Your task to perform on an android device: star an email in the gmail app Image 0: 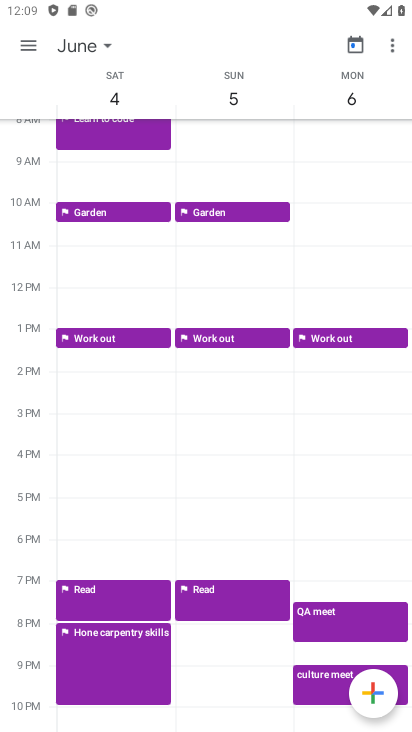
Step 0: press home button
Your task to perform on an android device: star an email in the gmail app Image 1: 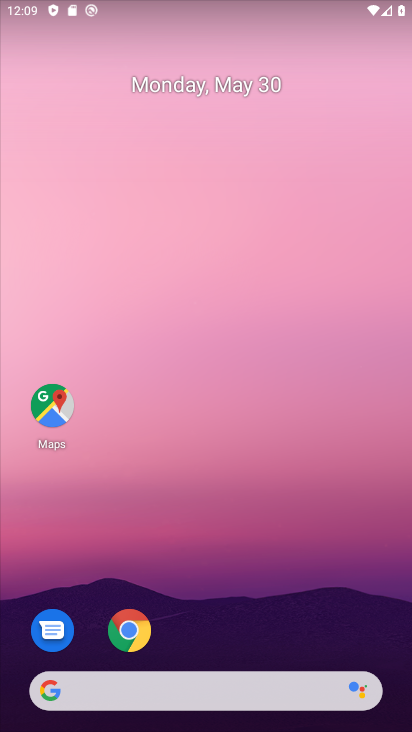
Step 1: drag from (88, 731) to (57, 64)
Your task to perform on an android device: star an email in the gmail app Image 2: 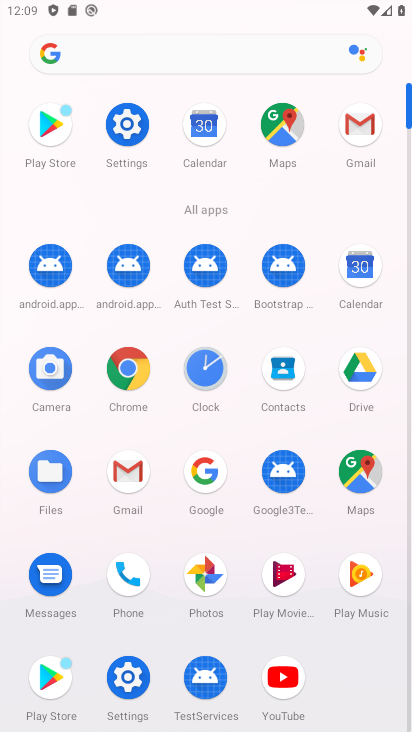
Step 2: click (133, 472)
Your task to perform on an android device: star an email in the gmail app Image 3: 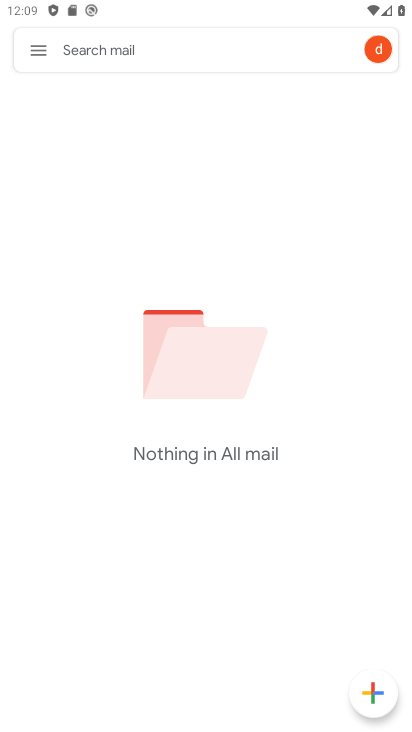
Step 3: click (39, 58)
Your task to perform on an android device: star an email in the gmail app Image 4: 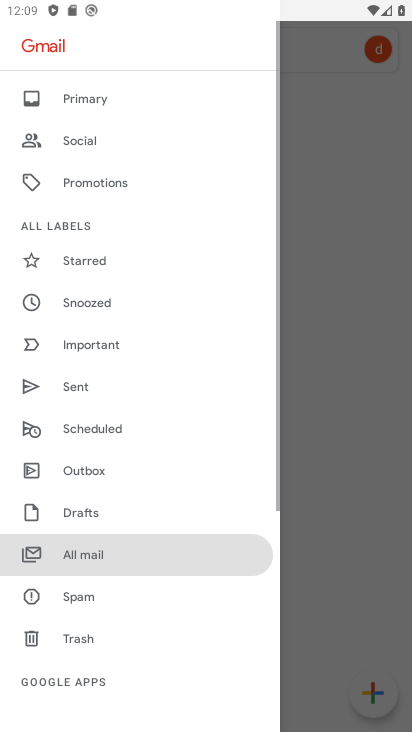
Step 4: click (87, 103)
Your task to perform on an android device: star an email in the gmail app Image 5: 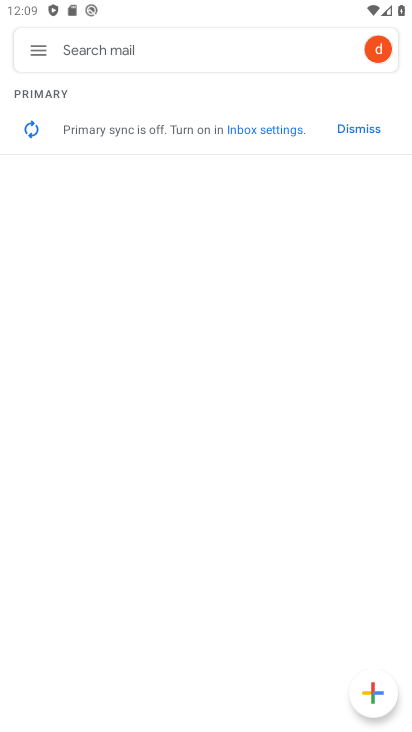
Step 5: click (352, 126)
Your task to perform on an android device: star an email in the gmail app Image 6: 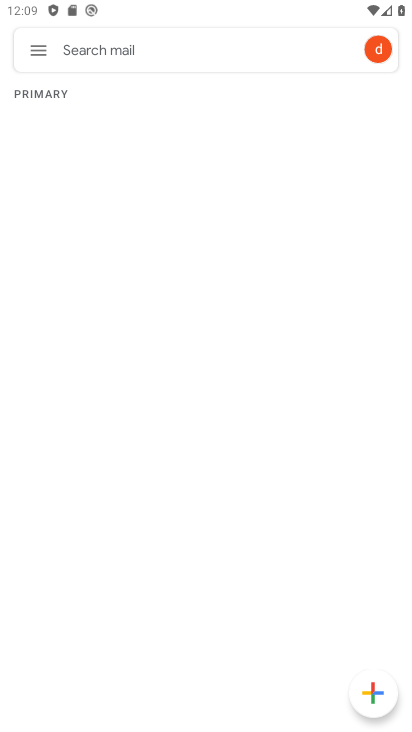
Step 6: click (35, 49)
Your task to perform on an android device: star an email in the gmail app Image 7: 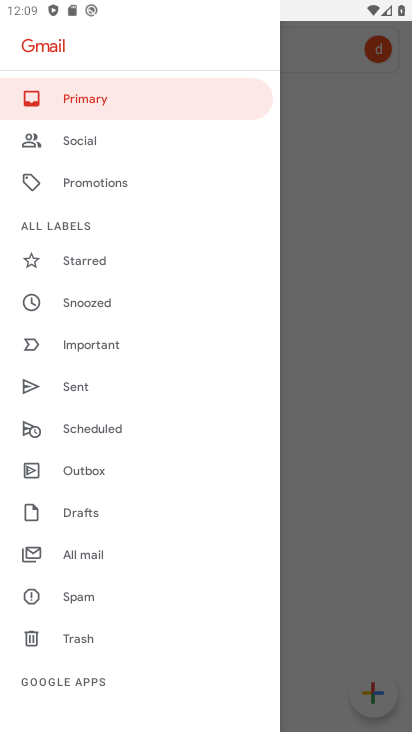
Step 7: click (82, 552)
Your task to perform on an android device: star an email in the gmail app Image 8: 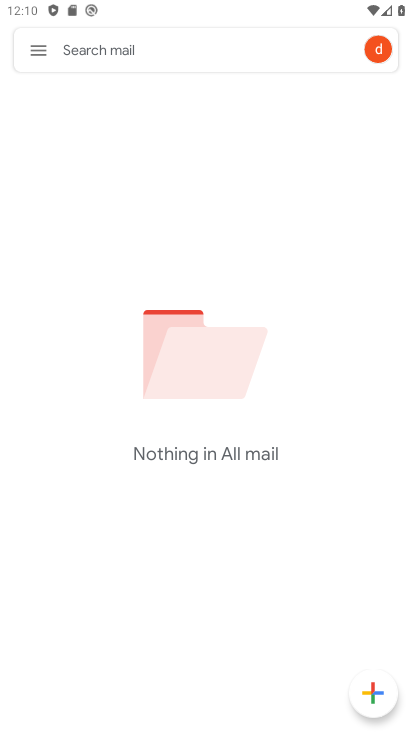
Step 8: task complete